Your task to perform on an android device: Go to Yahoo.com Image 0: 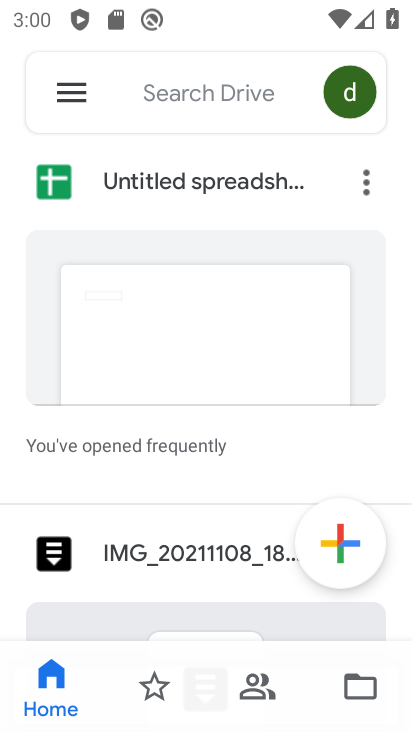
Step 0: press home button
Your task to perform on an android device: Go to Yahoo.com Image 1: 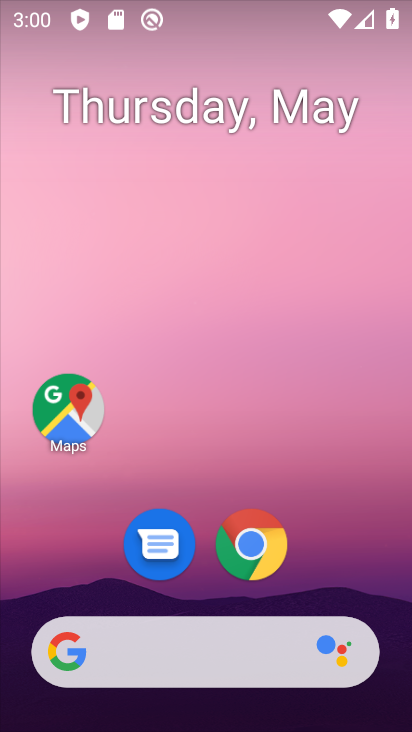
Step 1: click (243, 558)
Your task to perform on an android device: Go to Yahoo.com Image 2: 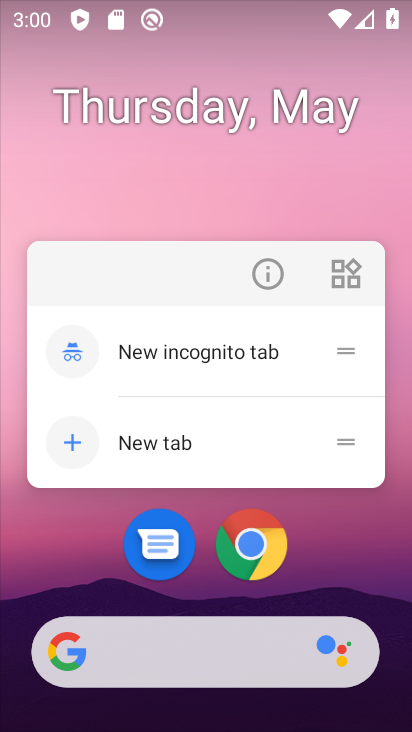
Step 2: click (259, 541)
Your task to perform on an android device: Go to Yahoo.com Image 3: 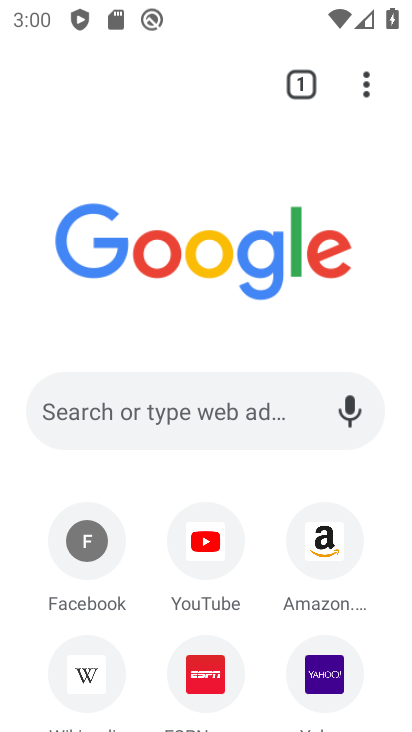
Step 3: click (306, 669)
Your task to perform on an android device: Go to Yahoo.com Image 4: 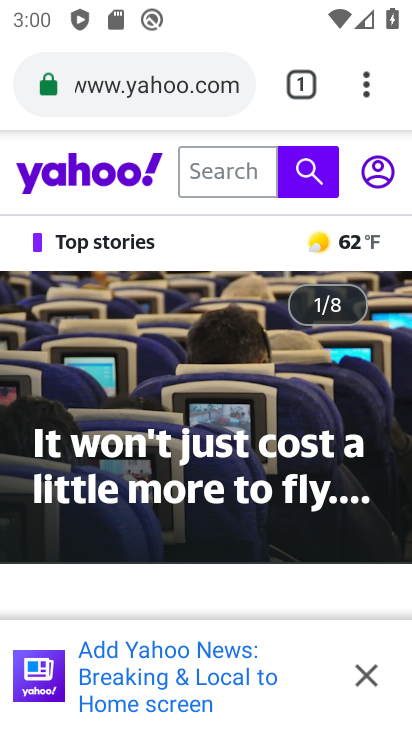
Step 4: task complete